Your task to perform on an android device: open a bookmark in the chrome app Image 0: 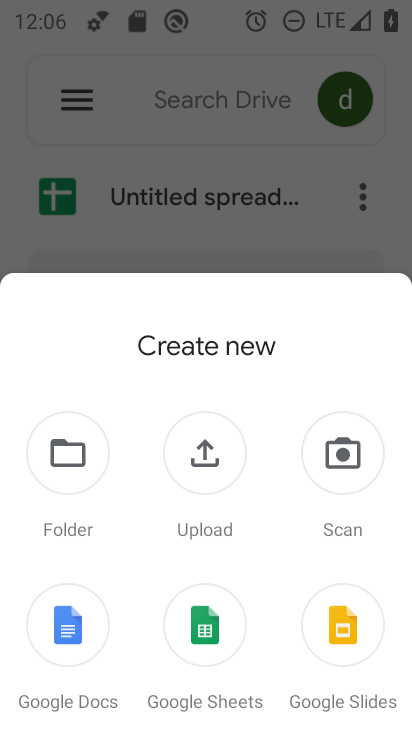
Step 0: press home button
Your task to perform on an android device: open a bookmark in the chrome app Image 1: 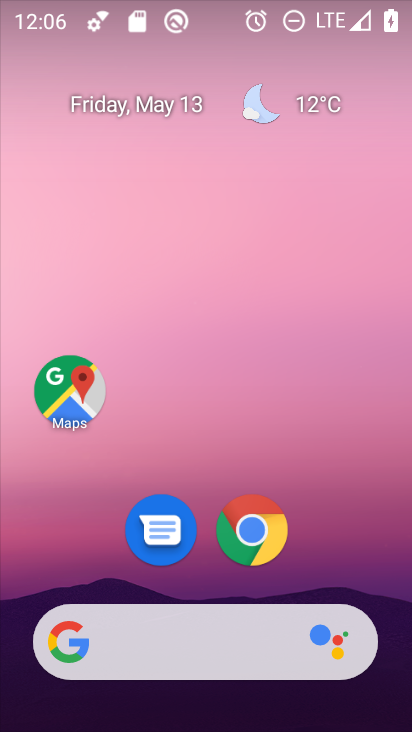
Step 1: click (249, 538)
Your task to perform on an android device: open a bookmark in the chrome app Image 2: 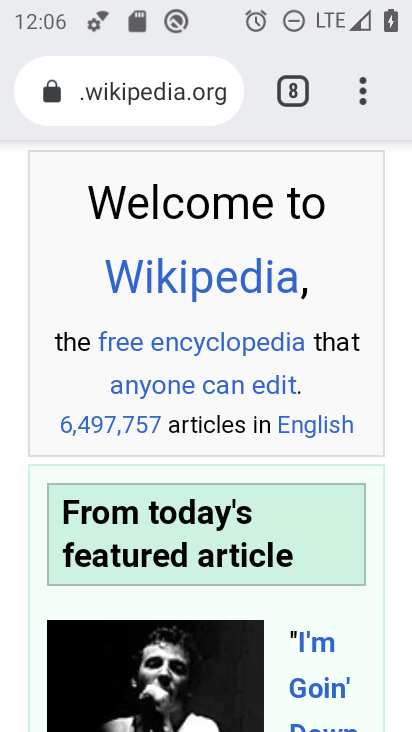
Step 2: task complete